Your task to perform on an android device: Open Google Maps Image 0: 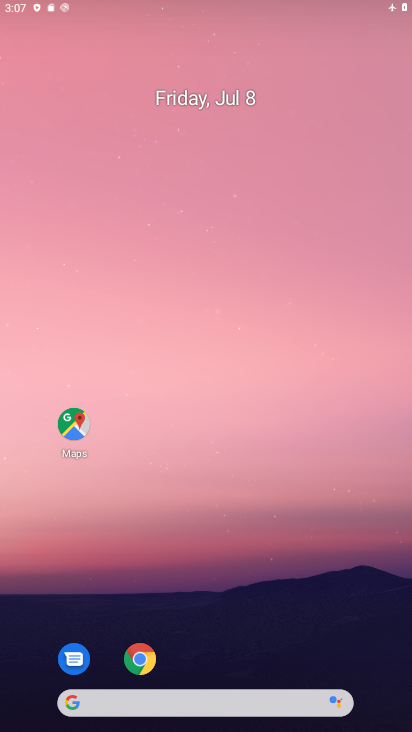
Step 0: drag from (357, 5) to (289, 421)
Your task to perform on an android device: Open Google Maps Image 1: 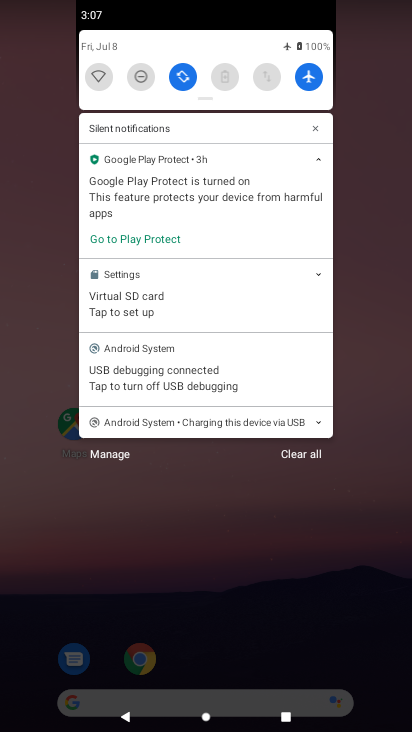
Step 1: click (300, 82)
Your task to perform on an android device: Open Google Maps Image 2: 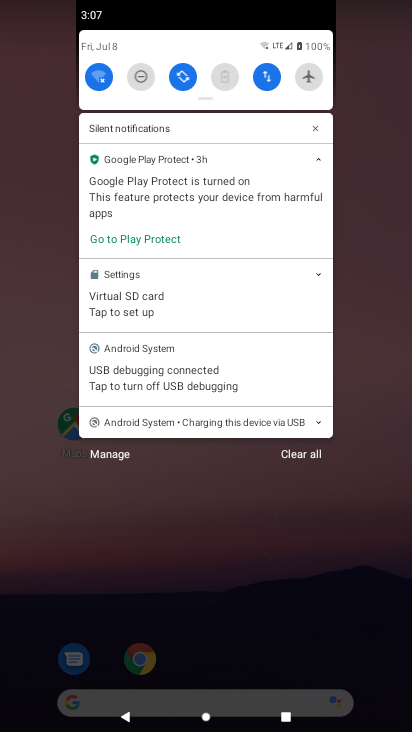
Step 2: press home button
Your task to perform on an android device: Open Google Maps Image 3: 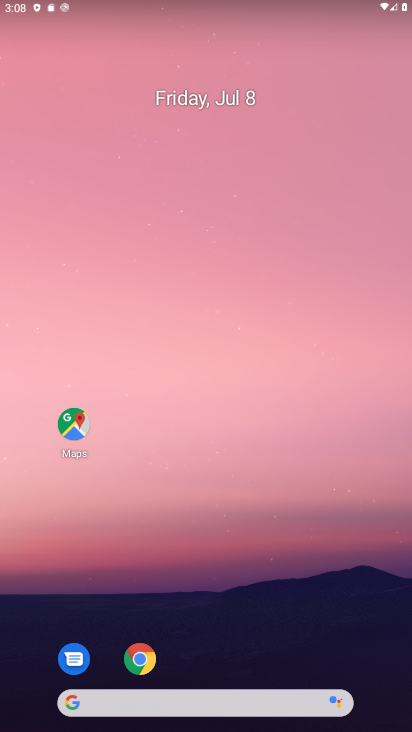
Step 3: click (66, 416)
Your task to perform on an android device: Open Google Maps Image 4: 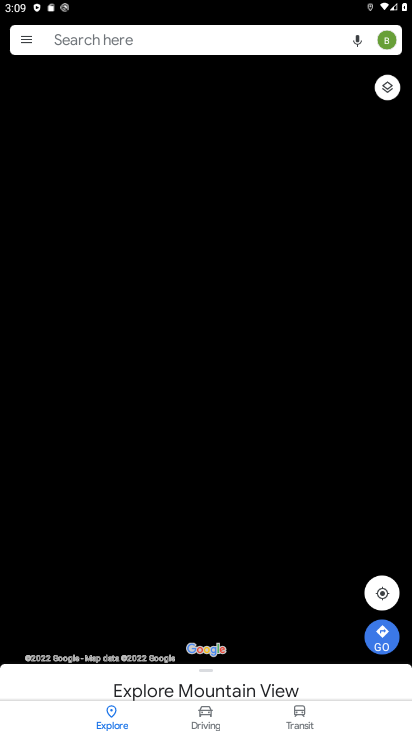
Step 4: task complete